Your task to perform on an android device: change notification settings in the gmail app Image 0: 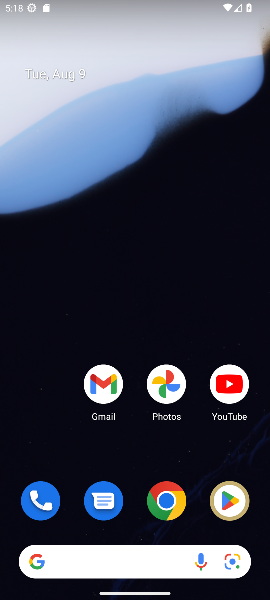
Step 0: drag from (178, 581) to (174, 68)
Your task to perform on an android device: change notification settings in the gmail app Image 1: 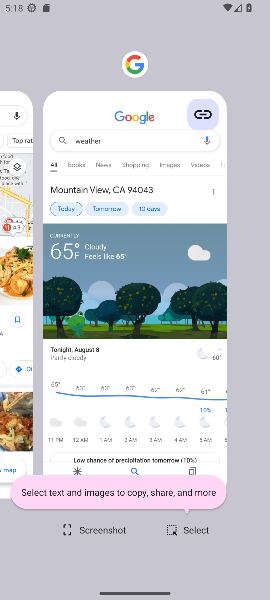
Step 1: press home button
Your task to perform on an android device: change notification settings in the gmail app Image 2: 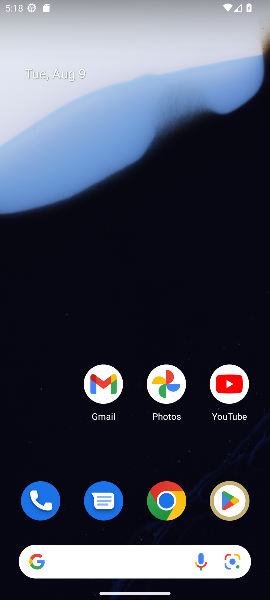
Step 2: drag from (136, 423) to (130, 29)
Your task to perform on an android device: change notification settings in the gmail app Image 3: 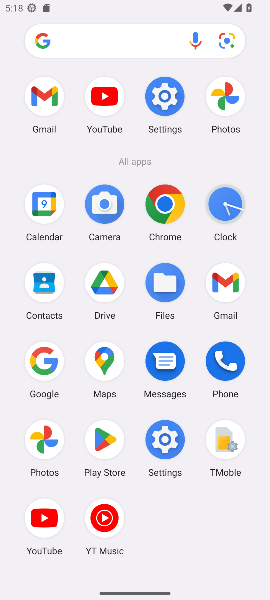
Step 3: click (48, 95)
Your task to perform on an android device: change notification settings in the gmail app Image 4: 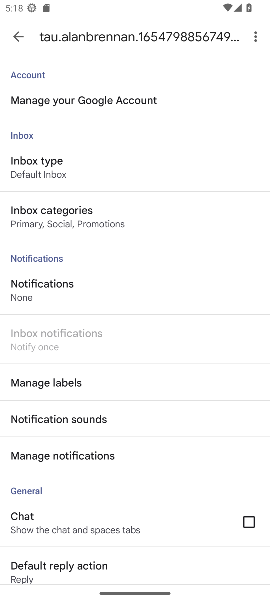
Step 4: click (70, 296)
Your task to perform on an android device: change notification settings in the gmail app Image 5: 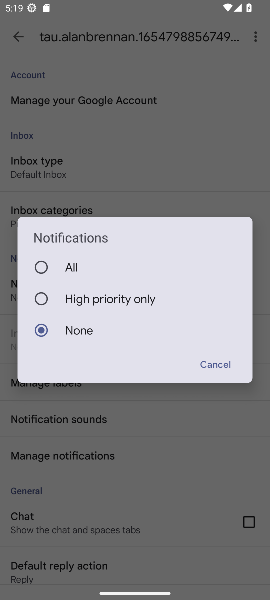
Step 5: click (53, 301)
Your task to perform on an android device: change notification settings in the gmail app Image 6: 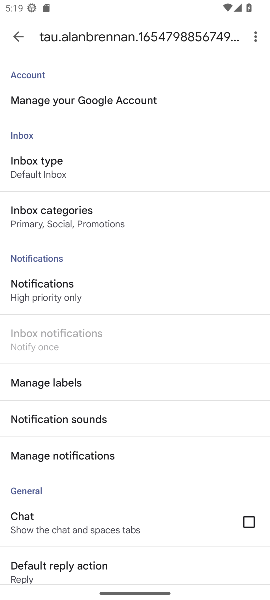
Step 6: task complete